Your task to perform on an android device: Open ESPN.com Image 0: 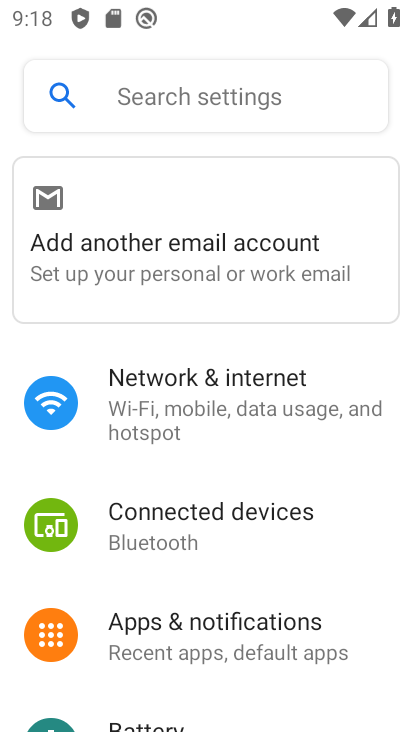
Step 0: press back button
Your task to perform on an android device: Open ESPN.com Image 1: 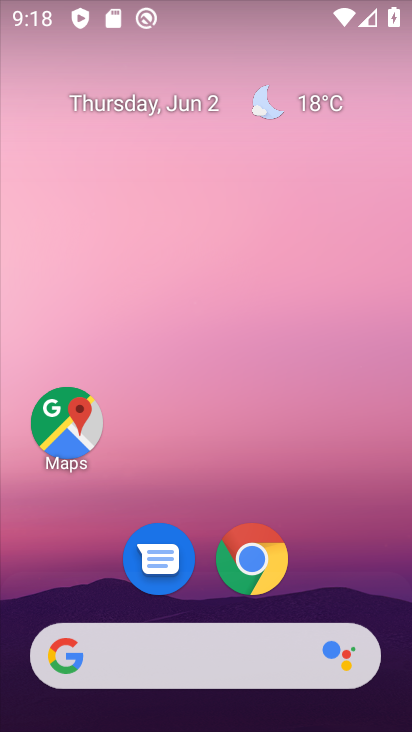
Step 1: click (252, 556)
Your task to perform on an android device: Open ESPN.com Image 2: 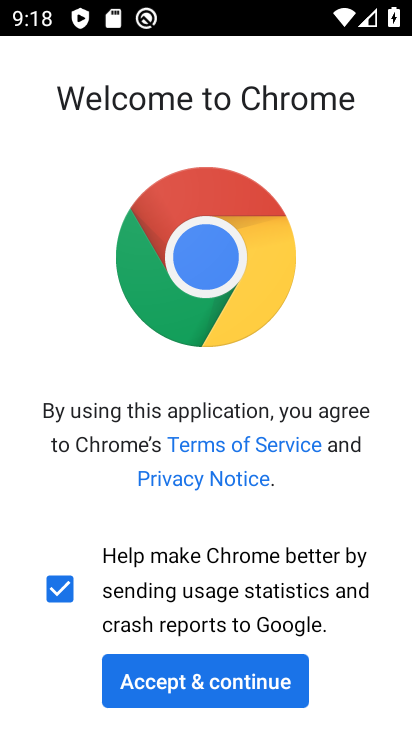
Step 2: click (203, 682)
Your task to perform on an android device: Open ESPN.com Image 3: 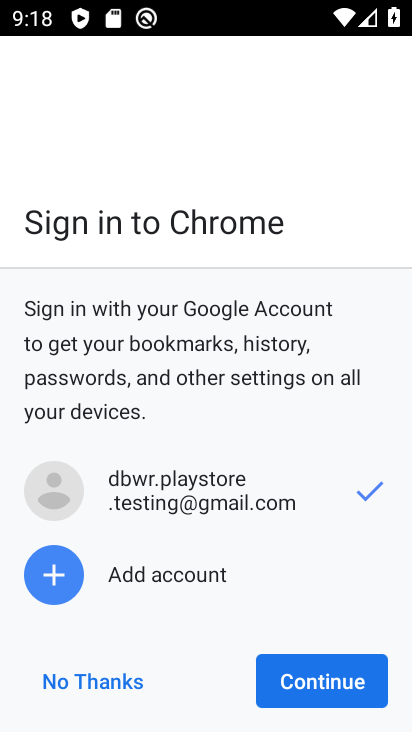
Step 3: click (307, 678)
Your task to perform on an android device: Open ESPN.com Image 4: 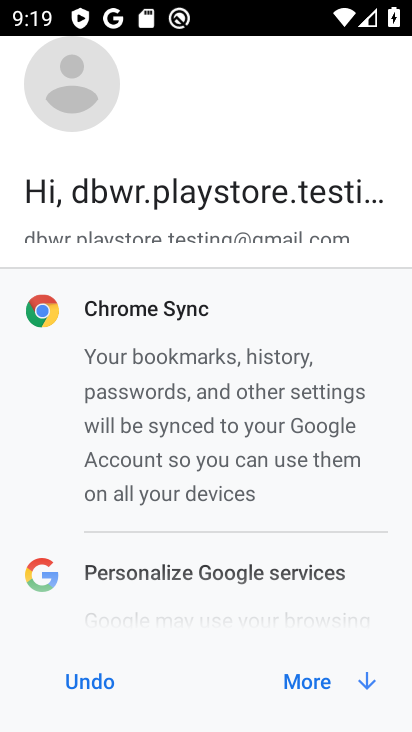
Step 4: click (319, 677)
Your task to perform on an android device: Open ESPN.com Image 5: 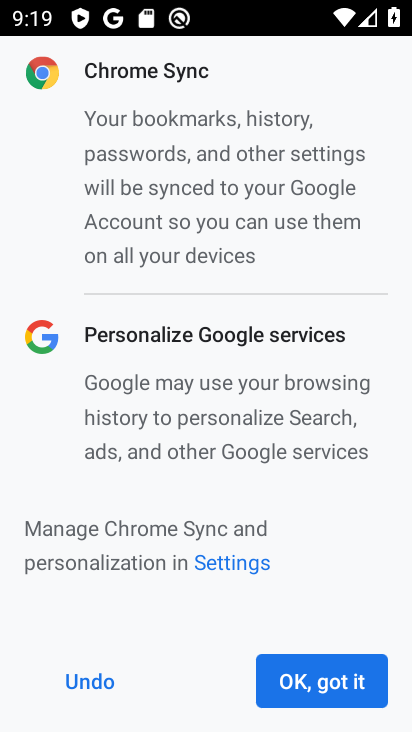
Step 5: click (307, 683)
Your task to perform on an android device: Open ESPN.com Image 6: 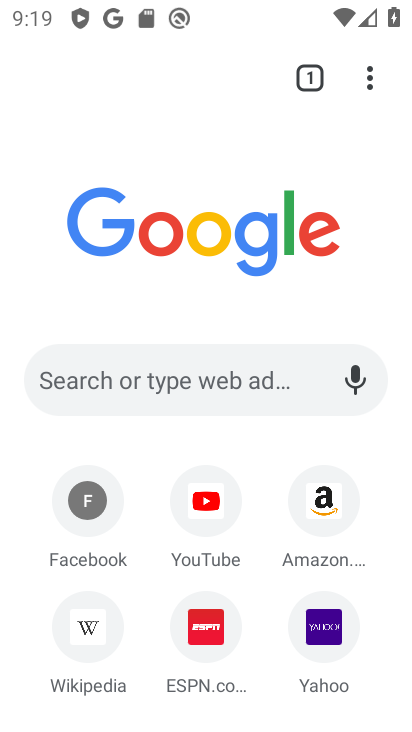
Step 6: click (205, 624)
Your task to perform on an android device: Open ESPN.com Image 7: 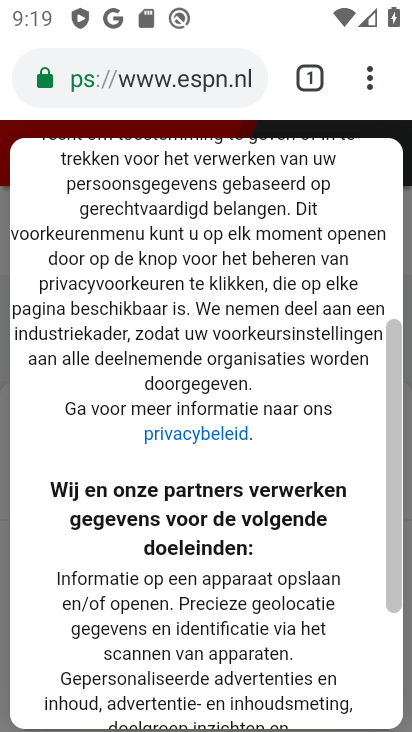
Step 7: task complete